Your task to perform on an android device: Find coffee shops on Maps Image 0: 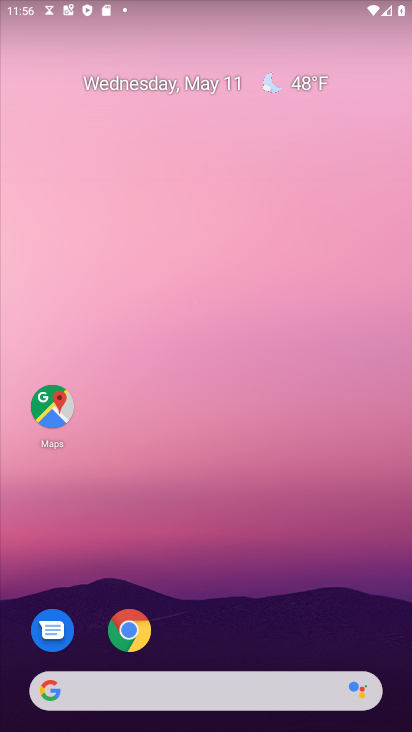
Step 0: drag from (221, 724) to (155, 55)
Your task to perform on an android device: Find coffee shops on Maps Image 1: 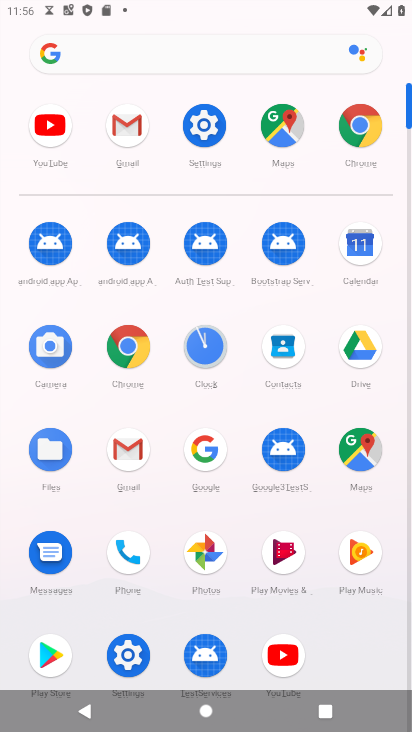
Step 1: click (359, 451)
Your task to perform on an android device: Find coffee shops on Maps Image 2: 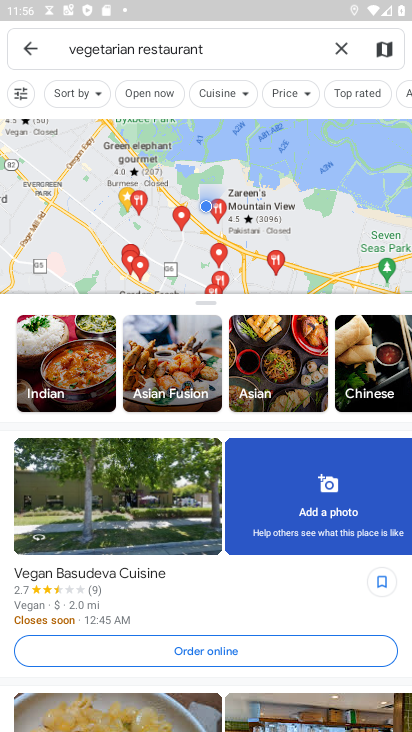
Step 2: click (338, 41)
Your task to perform on an android device: Find coffee shops on Maps Image 3: 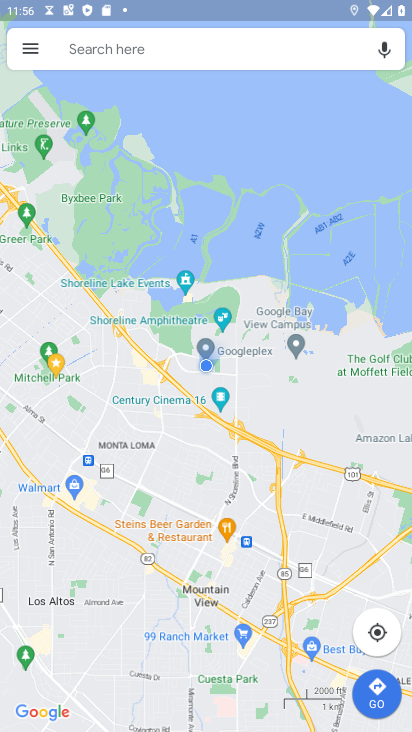
Step 3: click (155, 44)
Your task to perform on an android device: Find coffee shops on Maps Image 4: 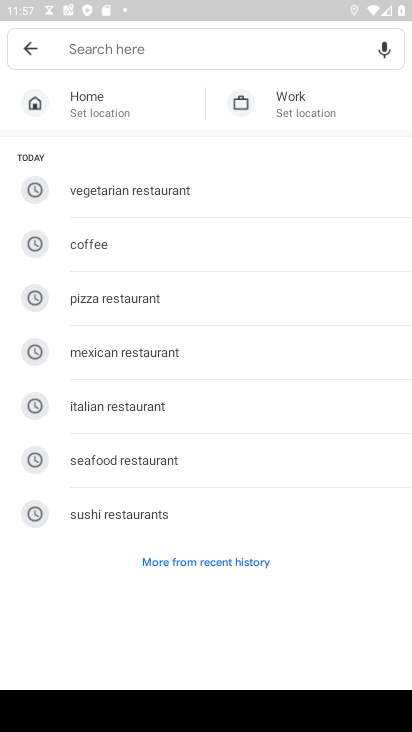
Step 4: type "coffee shops"
Your task to perform on an android device: Find coffee shops on Maps Image 5: 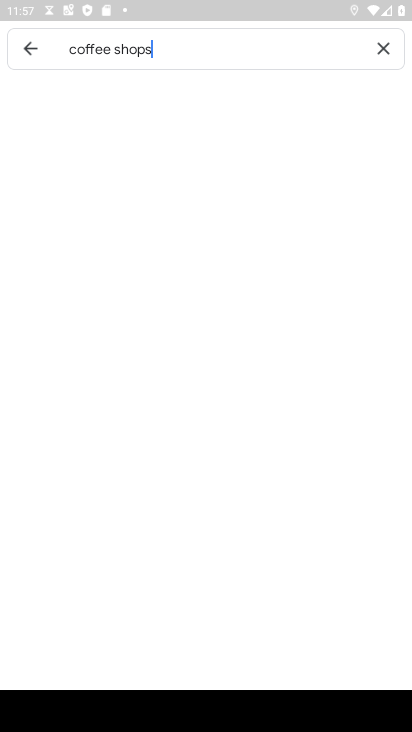
Step 5: type ""
Your task to perform on an android device: Find coffee shops on Maps Image 6: 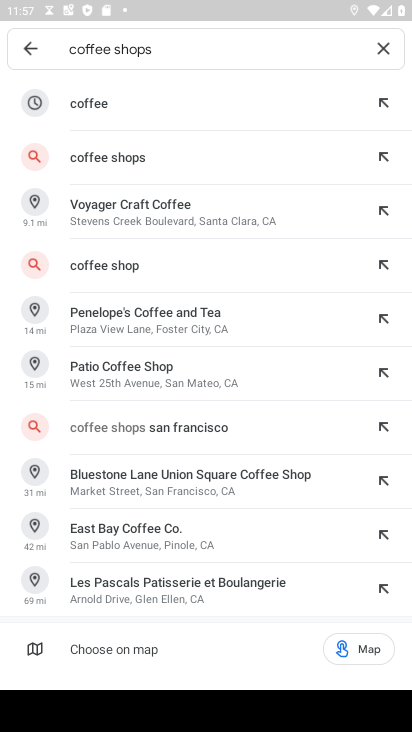
Step 6: click (93, 155)
Your task to perform on an android device: Find coffee shops on Maps Image 7: 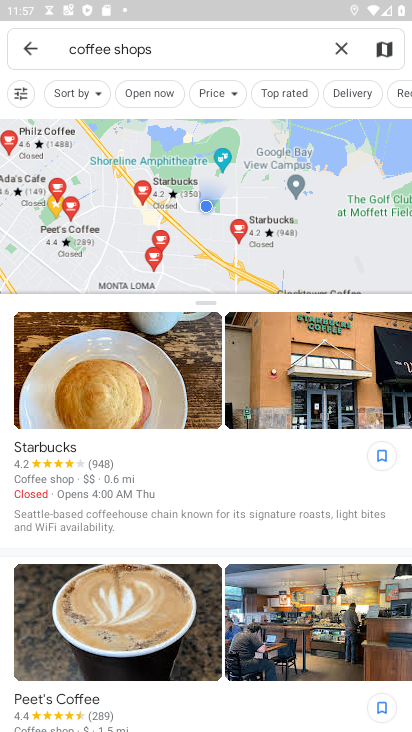
Step 7: task complete